Your task to perform on an android device: turn pop-ups on in chrome Image 0: 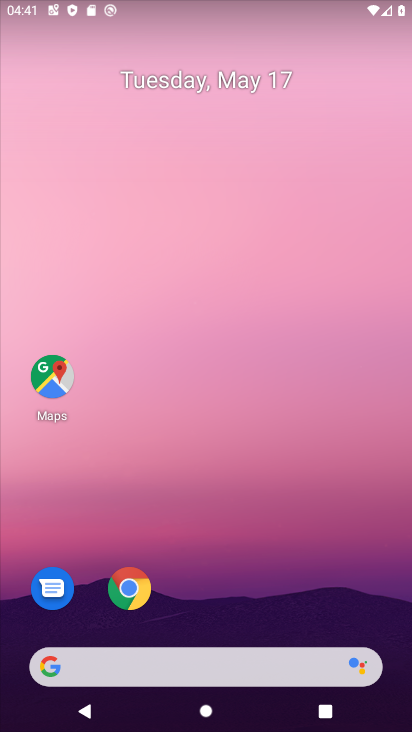
Step 0: click (128, 587)
Your task to perform on an android device: turn pop-ups on in chrome Image 1: 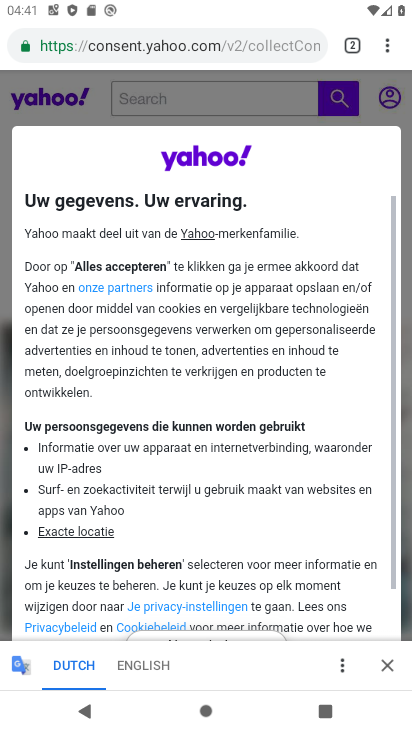
Step 1: click (388, 45)
Your task to perform on an android device: turn pop-ups on in chrome Image 2: 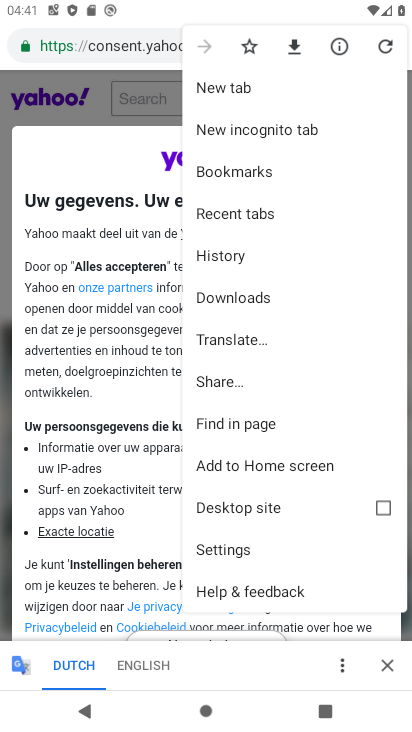
Step 2: click (220, 544)
Your task to perform on an android device: turn pop-ups on in chrome Image 3: 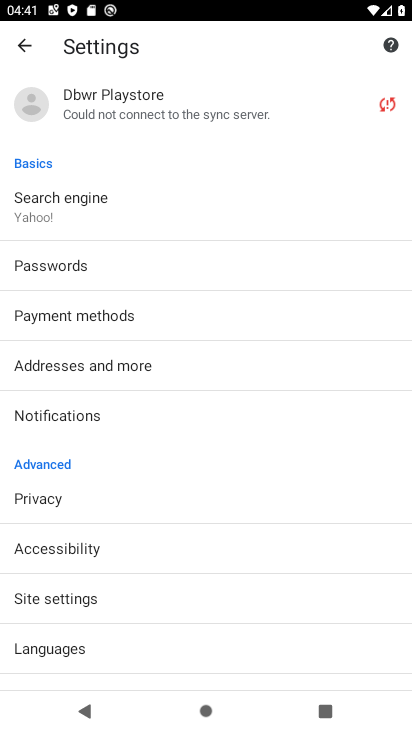
Step 3: drag from (116, 558) to (141, 473)
Your task to perform on an android device: turn pop-ups on in chrome Image 4: 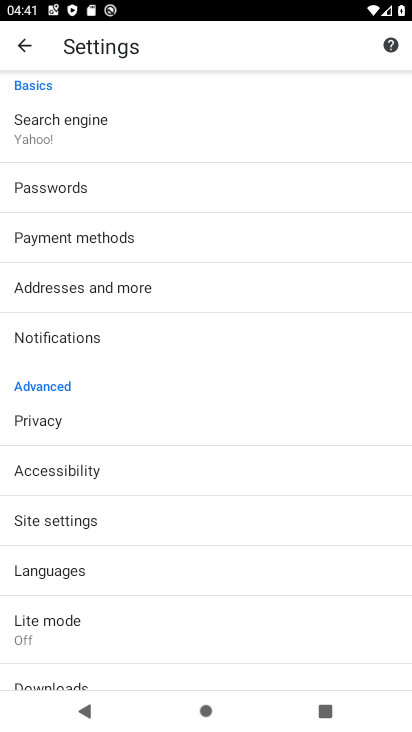
Step 4: drag from (90, 609) to (106, 548)
Your task to perform on an android device: turn pop-ups on in chrome Image 5: 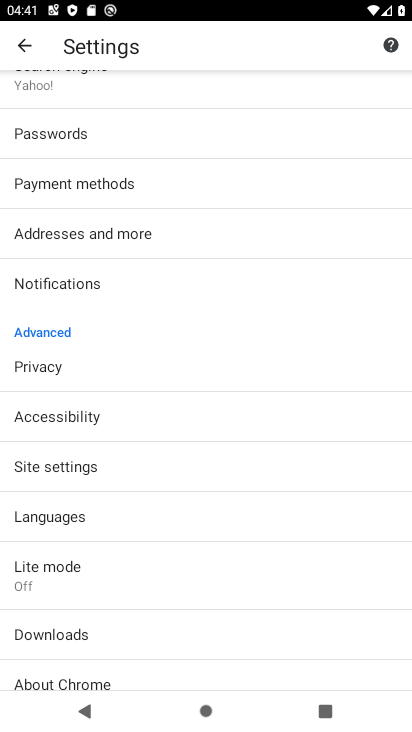
Step 5: click (69, 469)
Your task to perform on an android device: turn pop-ups on in chrome Image 6: 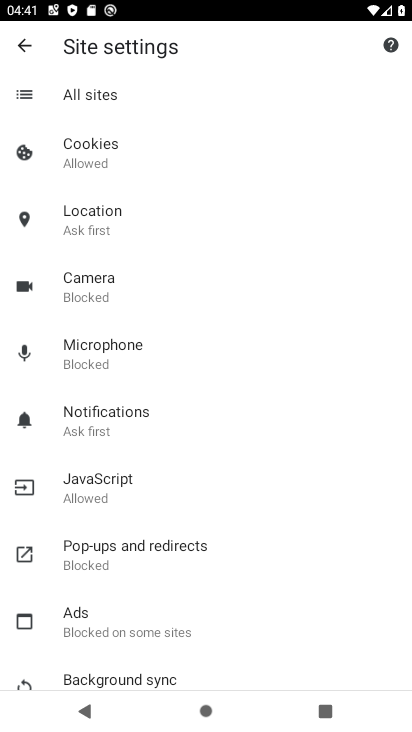
Step 6: click (118, 546)
Your task to perform on an android device: turn pop-ups on in chrome Image 7: 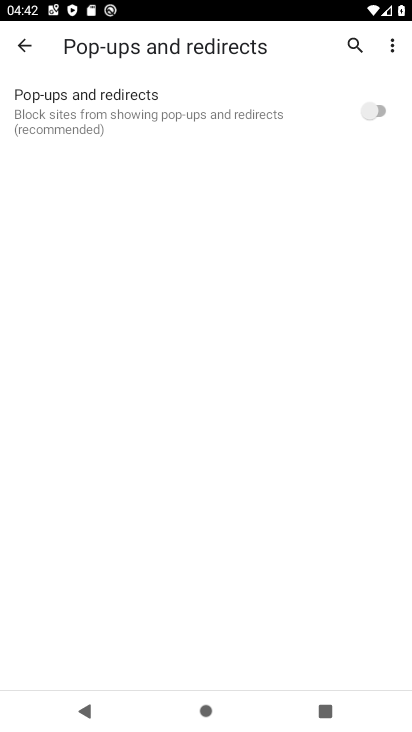
Step 7: click (374, 113)
Your task to perform on an android device: turn pop-ups on in chrome Image 8: 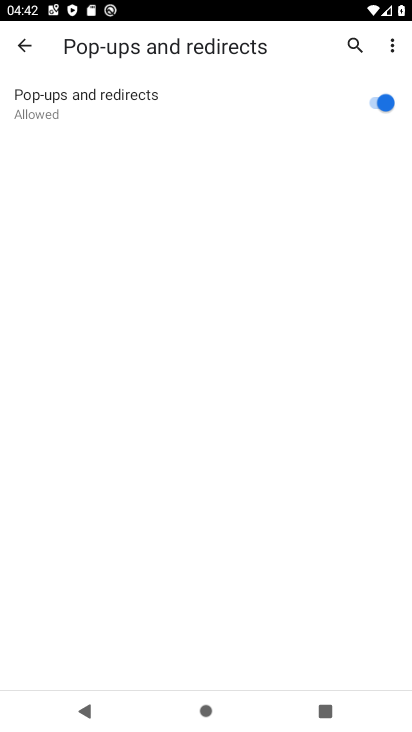
Step 8: task complete